Your task to perform on an android device: Turn off the flashlight Image 0: 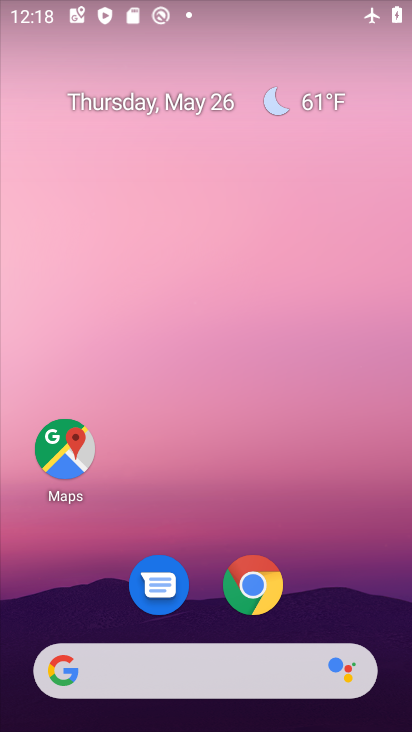
Step 0: drag from (202, 519) to (245, 23)
Your task to perform on an android device: Turn off the flashlight Image 1: 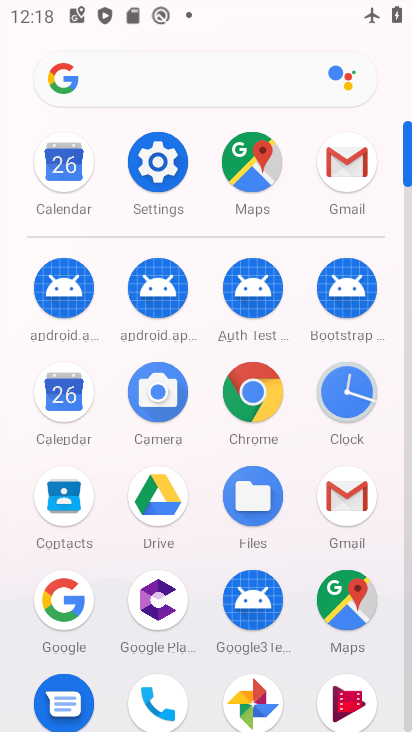
Step 1: click (157, 134)
Your task to perform on an android device: Turn off the flashlight Image 2: 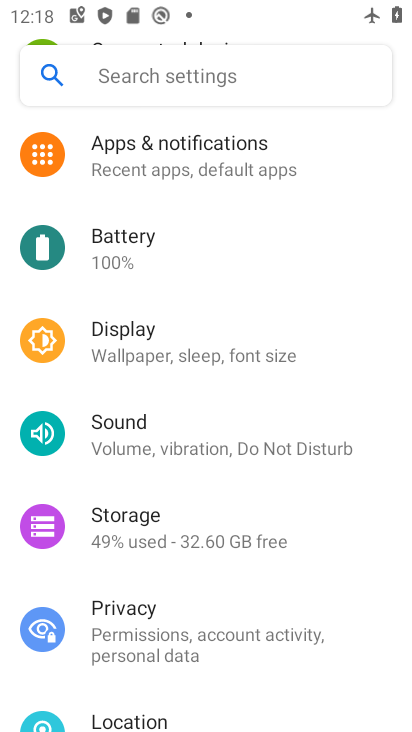
Step 2: drag from (274, 192) to (286, 579)
Your task to perform on an android device: Turn off the flashlight Image 3: 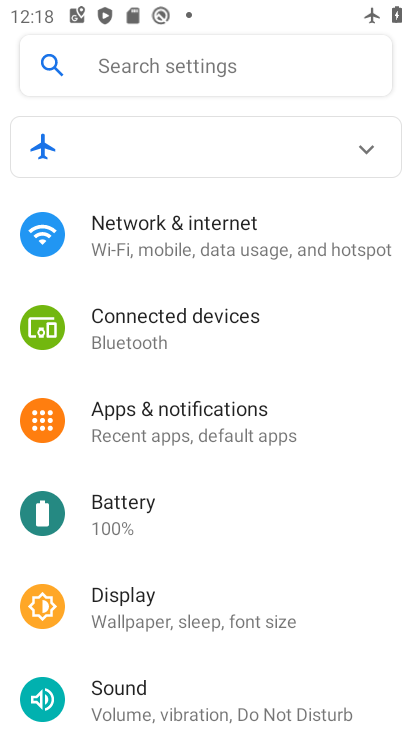
Step 3: click (313, 66)
Your task to perform on an android device: Turn off the flashlight Image 4: 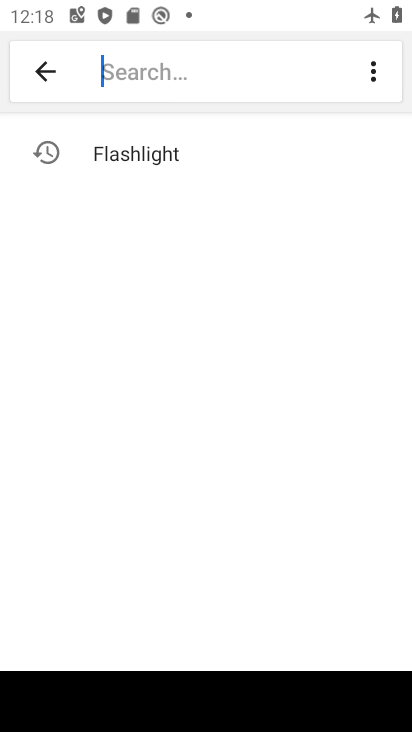
Step 4: click (178, 147)
Your task to perform on an android device: Turn off the flashlight Image 5: 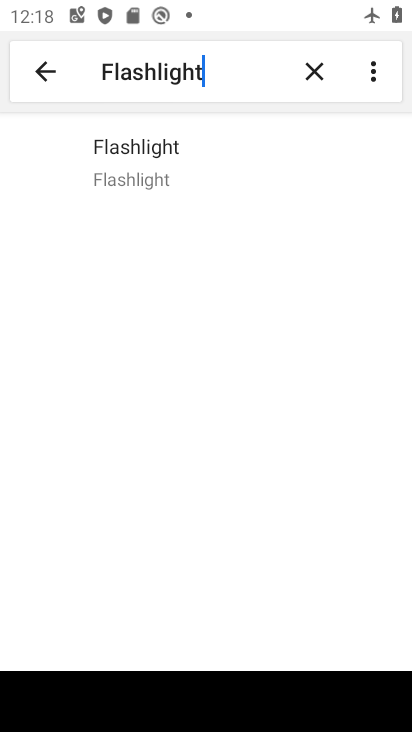
Step 5: click (178, 147)
Your task to perform on an android device: Turn off the flashlight Image 6: 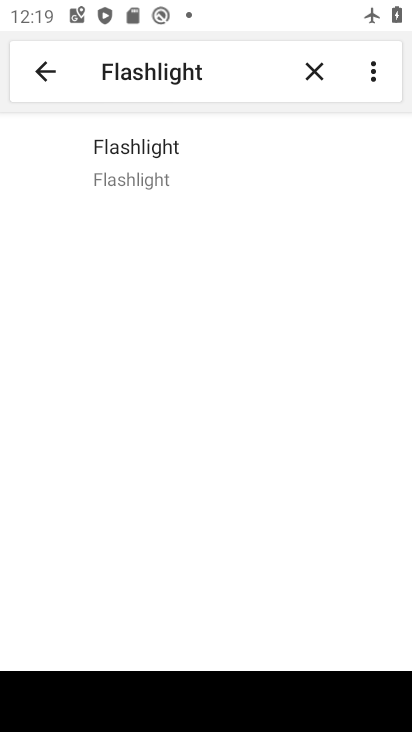
Step 6: task complete